Your task to perform on an android device: choose inbox layout in the gmail app Image 0: 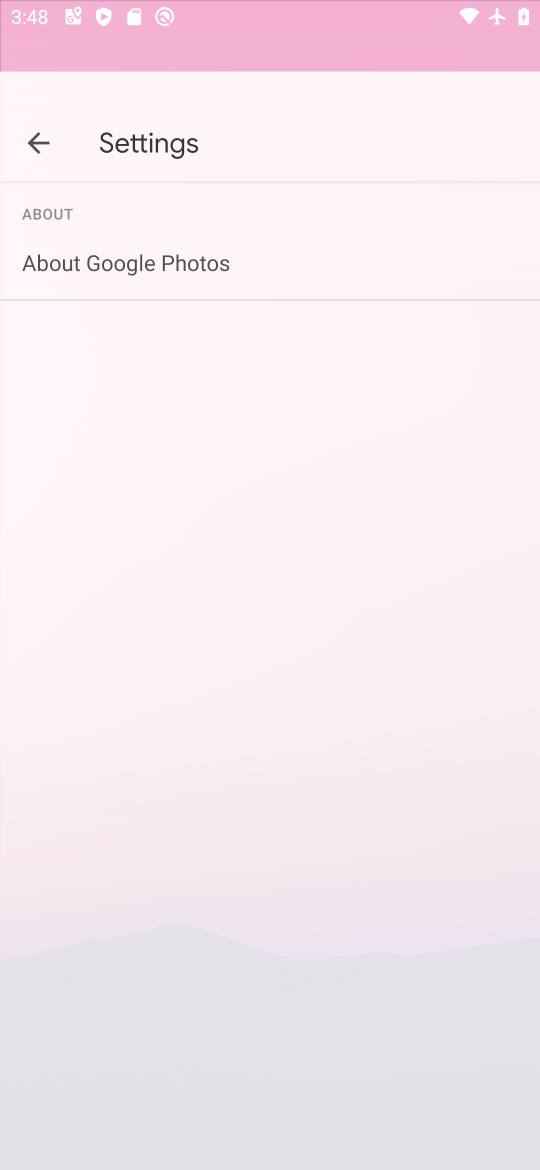
Step 0: press home button
Your task to perform on an android device: choose inbox layout in the gmail app Image 1: 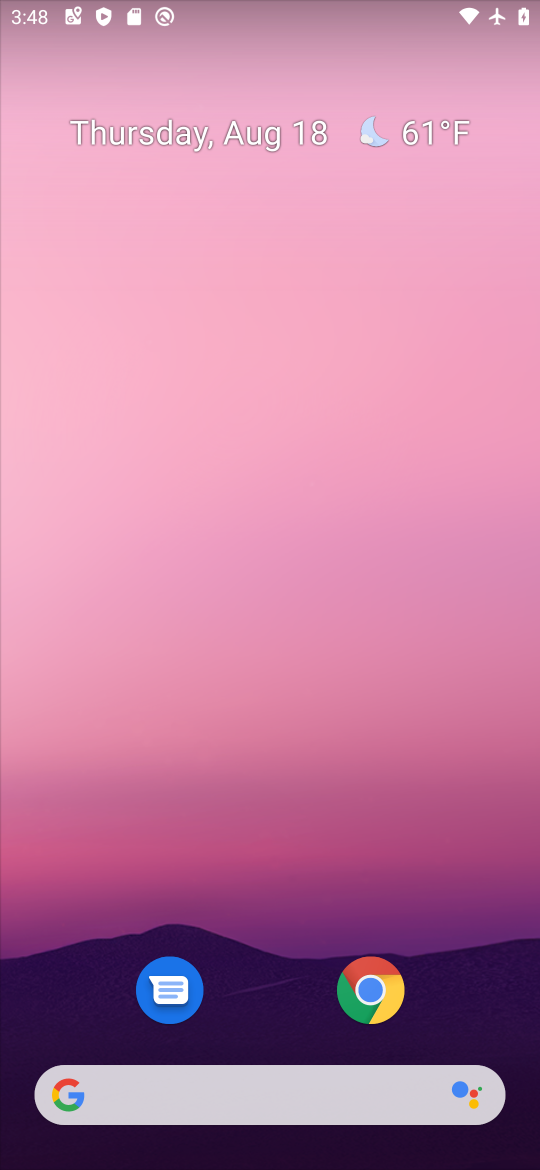
Step 1: press home button
Your task to perform on an android device: choose inbox layout in the gmail app Image 2: 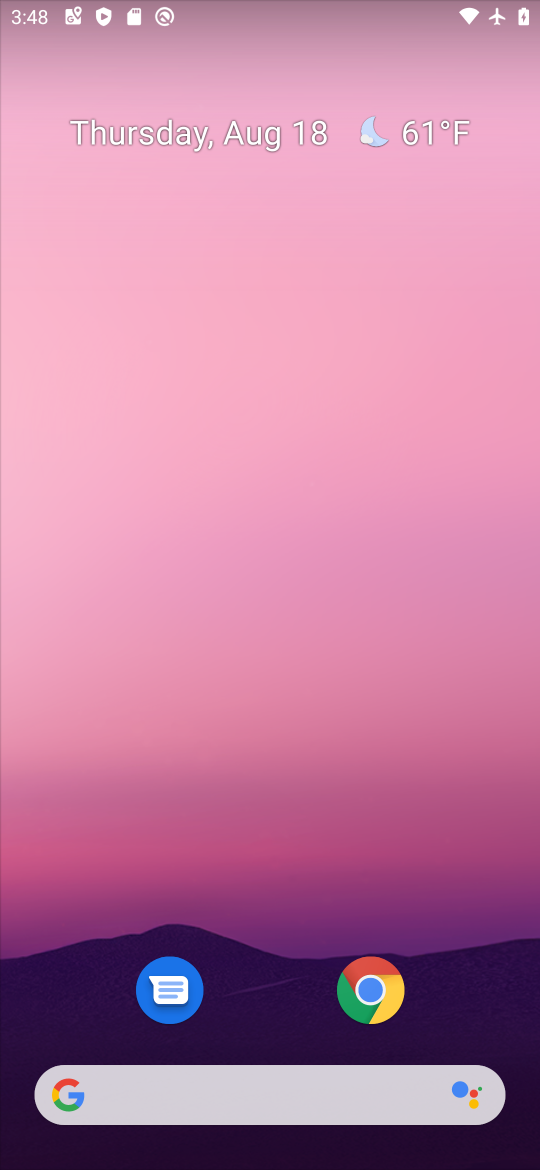
Step 2: drag from (263, 813) to (367, 101)
Your task to perform on an android device: choose inbox layout in the gmail app Image 3: 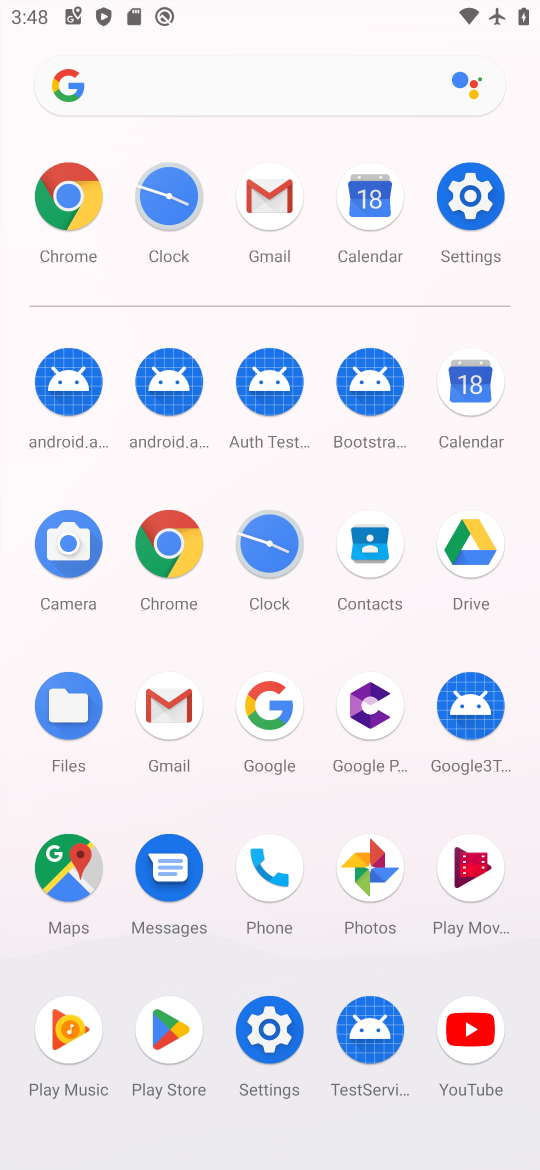
Step 3: click (188, 708)
Your task to perform on an android device: choose inbox layout in the gmail app Image 4: 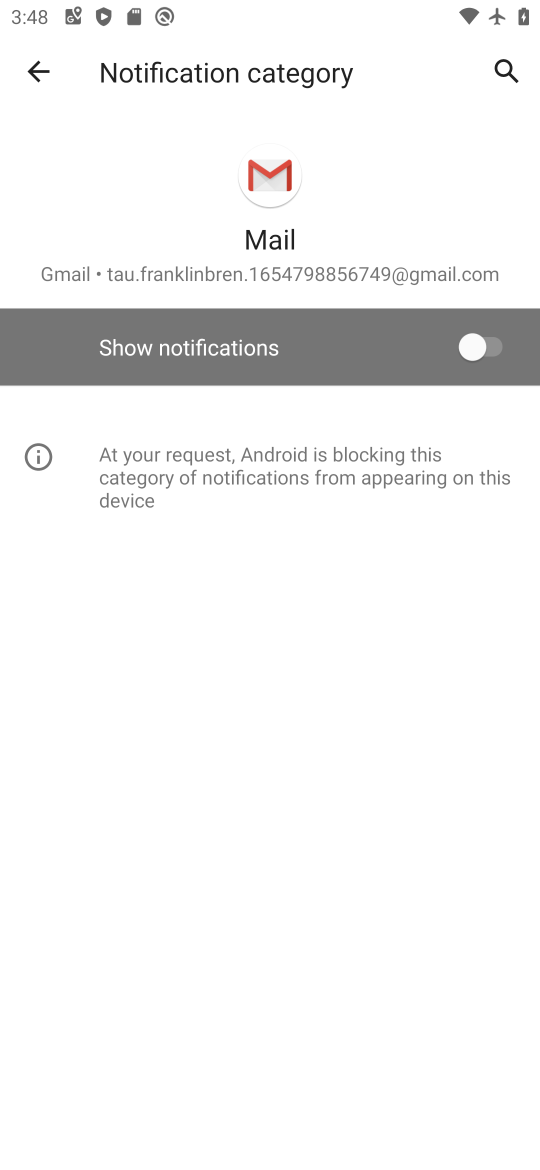
Step 4: press back button
Your task to perform on an android device: choose inbox layout in the gmail app Image 5: 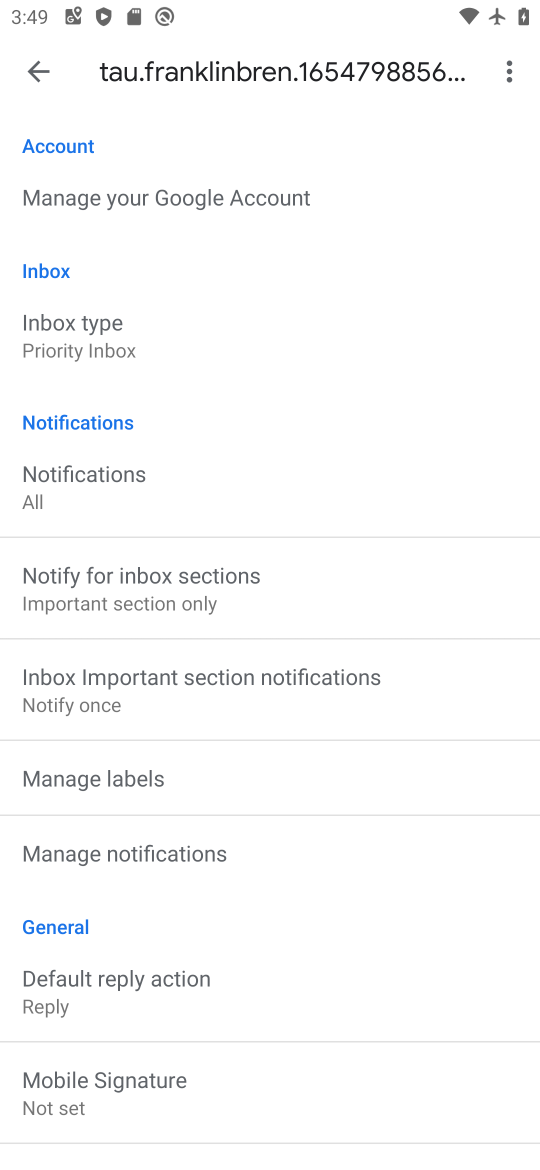
Step 5: press back button
Your task to perform on an android device: choose inbox layout in the gmail app Image 6: 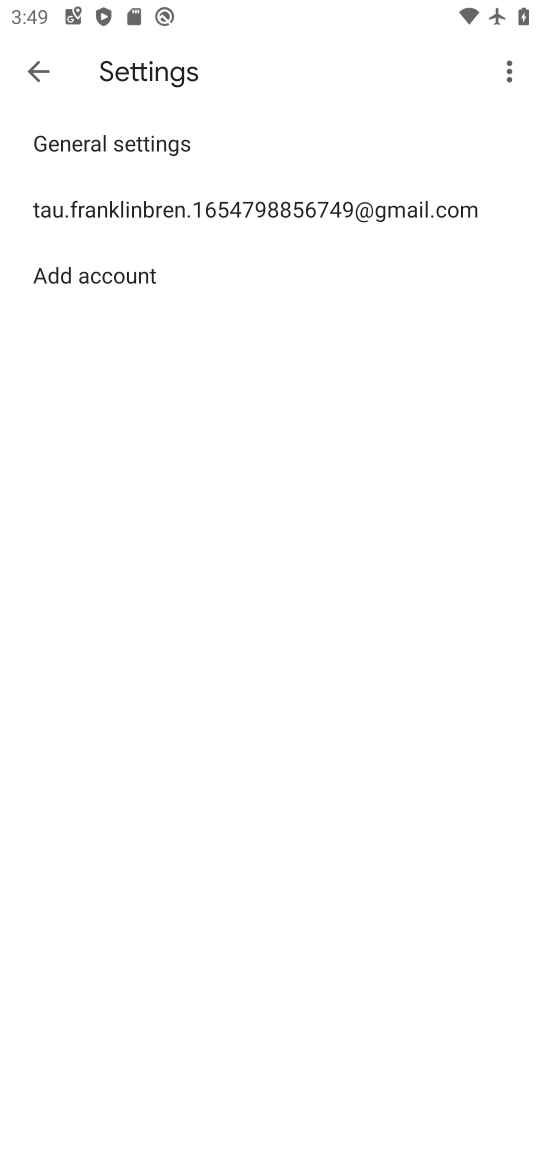
Step 6: press back button
Your task to perform on an android device: choose inbox layout in the gmail app Image 7: 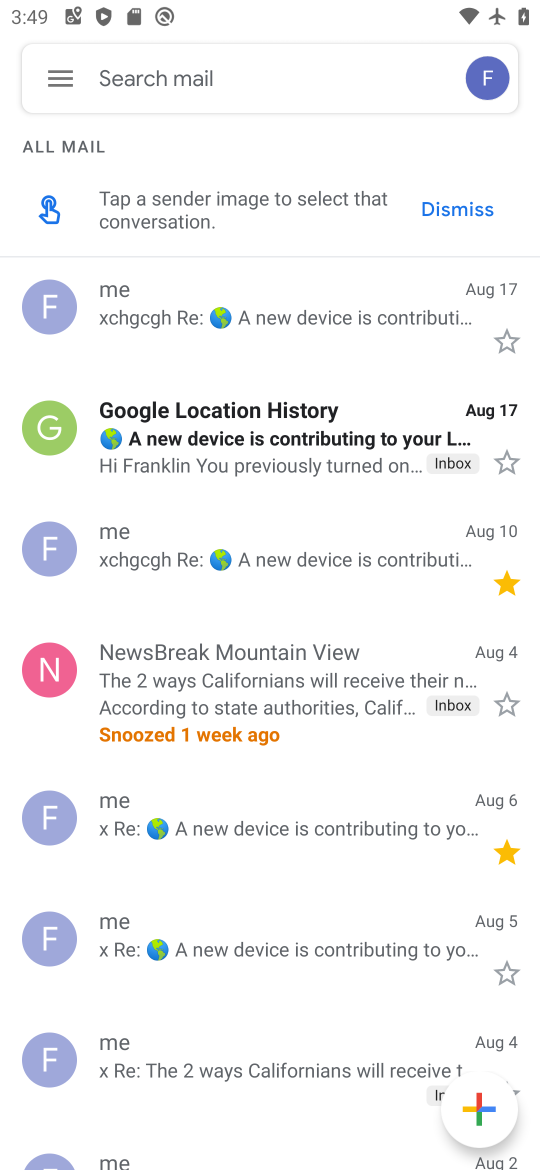
Step 7: click (62, 69)
Your task to perform on an android device: choose inbox layout in the gmail app Image 8: 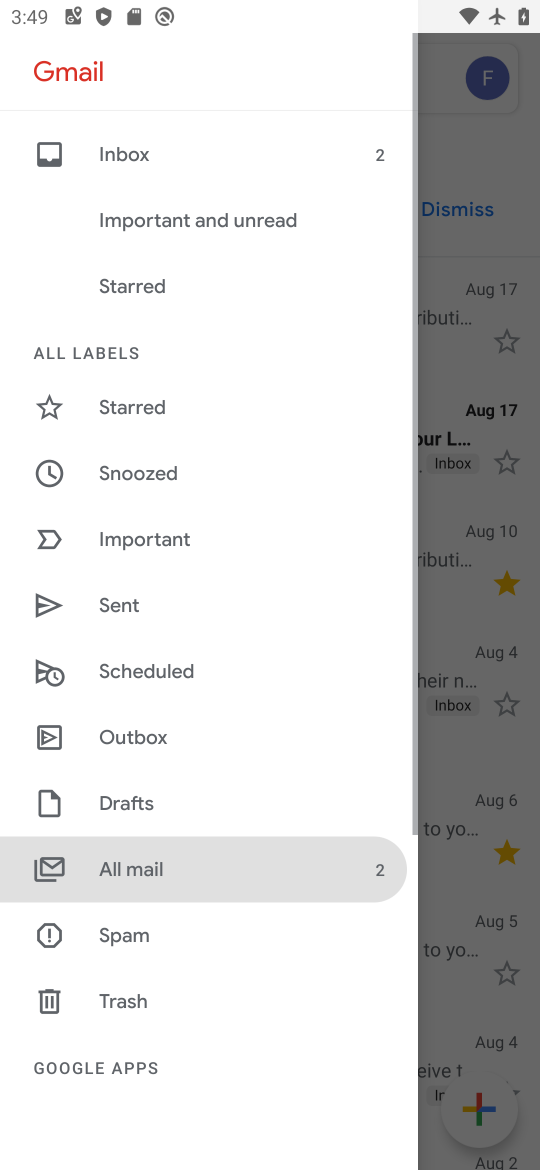
Step 8: drag from (160, 896) to (290, 275)
Your task to perform on an android device: choose inbox layout in the gmail app Image 9: 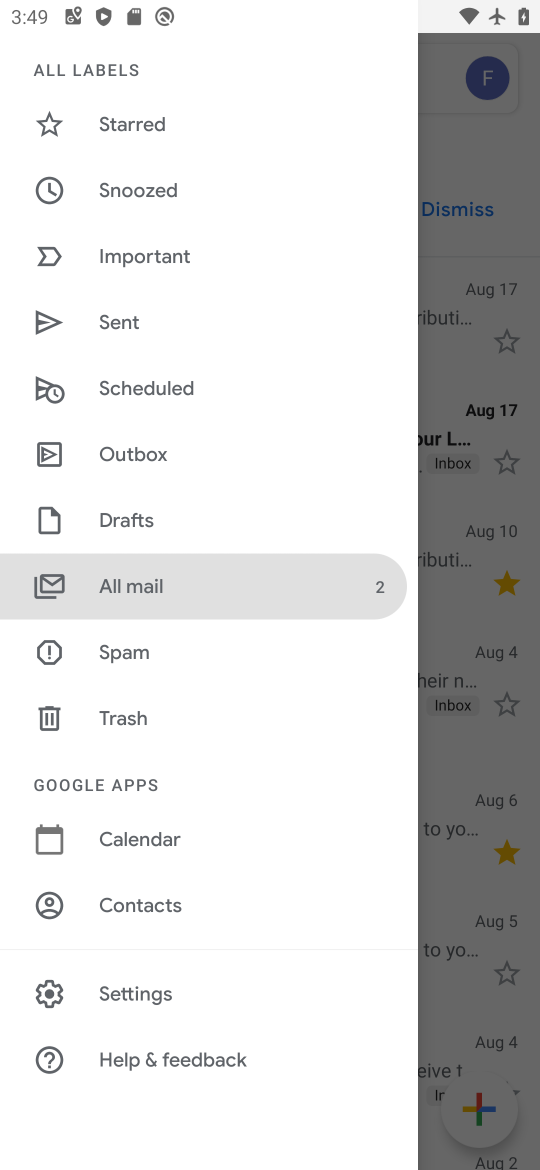
Step 9: click (153, 990)
Your task to perform on an android device: choose inbox layout in the gmail app Image 10: 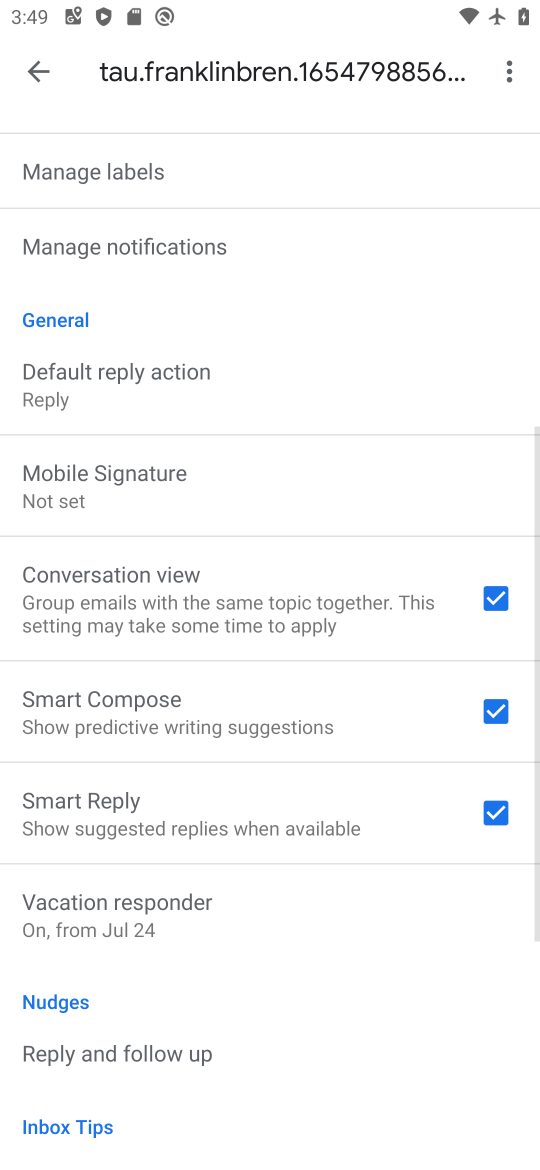
Step 10: drag from (174, 268) to (182, 886)
Your task to perform on an android device: choose inbox layout in the gmail app Image 11: 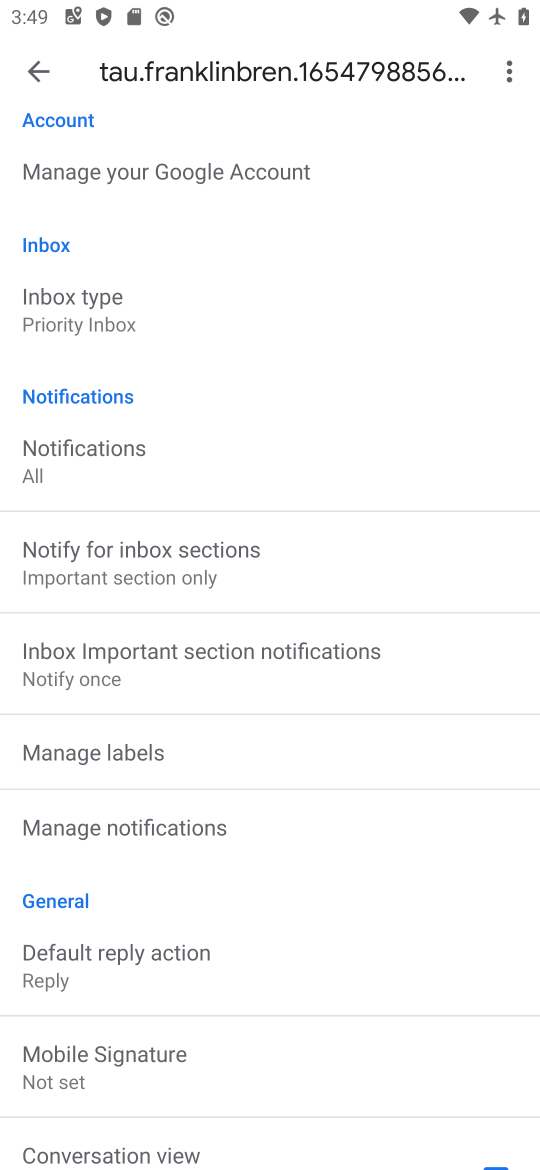
Step 11: drag from (195, 259) to (286, 638)
Your task to perform on an android device: choose inbox layout in the gmail app Image 12: 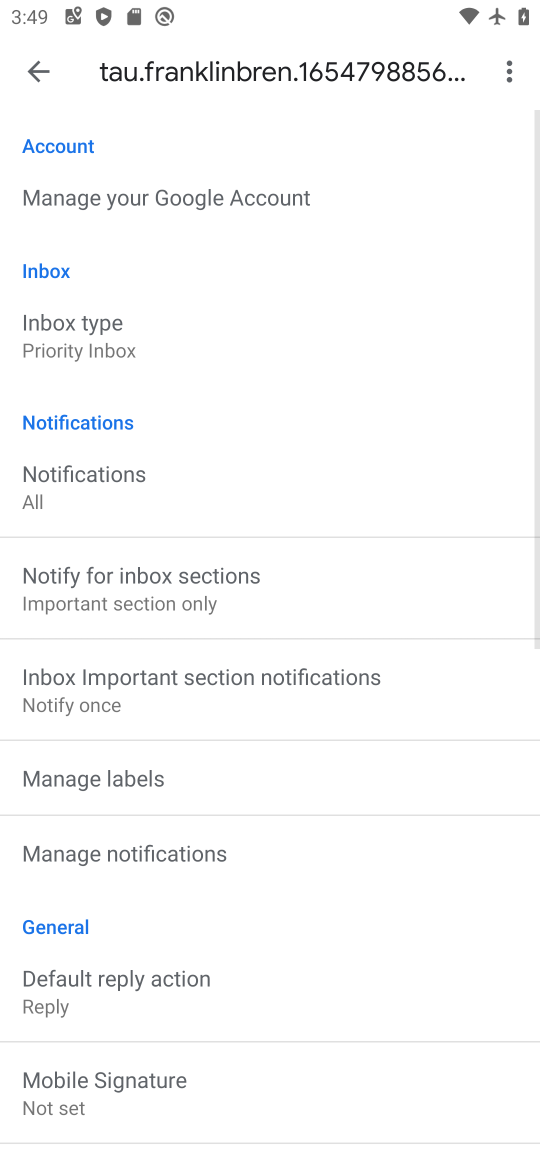
Step 12: click (107, 336)
Your task to perform on an android device: choose inbox layout in the gmail app Image 13: 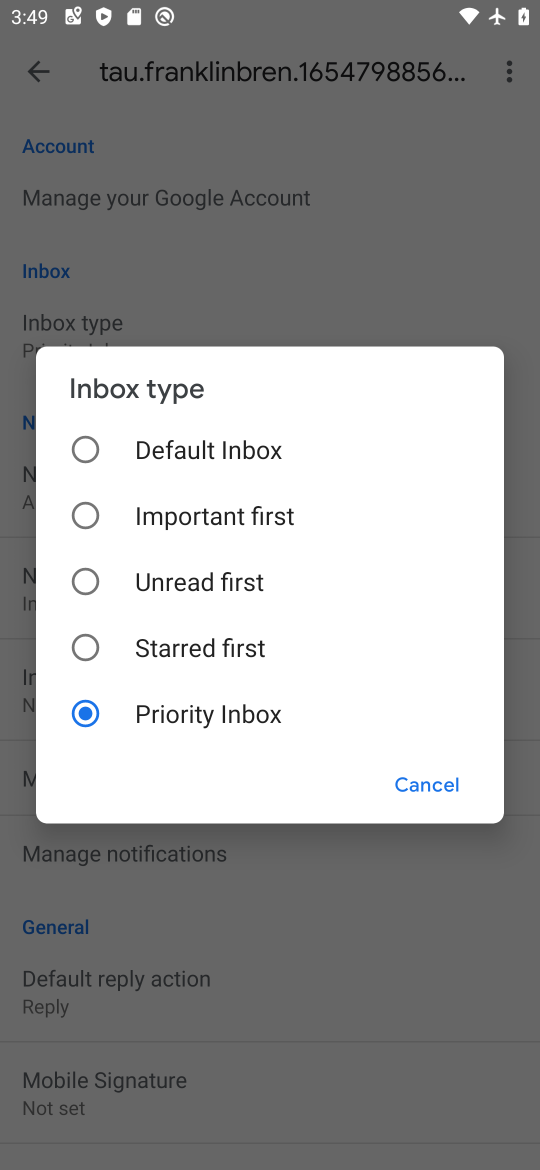
Step 13: task complete